Your task to perform on an android device: Go to Android settings Image 0: 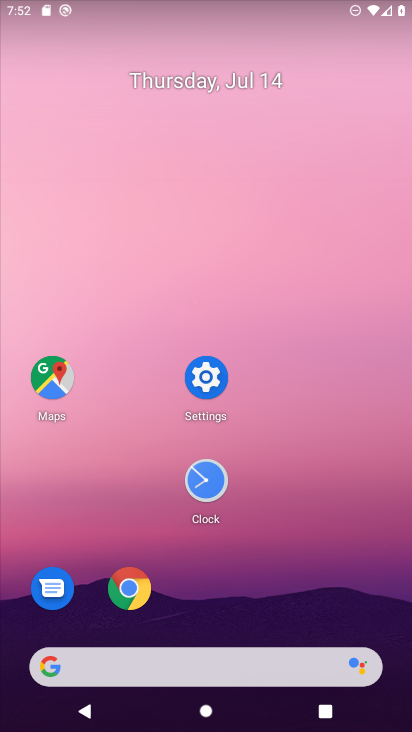
Step 0: click (196, 373)
Your task to perform on an android device: Go to Android settings Image 1: 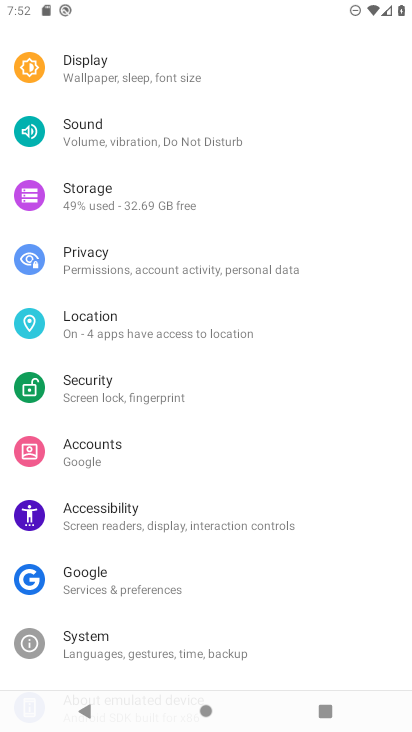
Step 1: task complete